Your task to perform on an android device: Do I have any events tomorrow? Image 0: 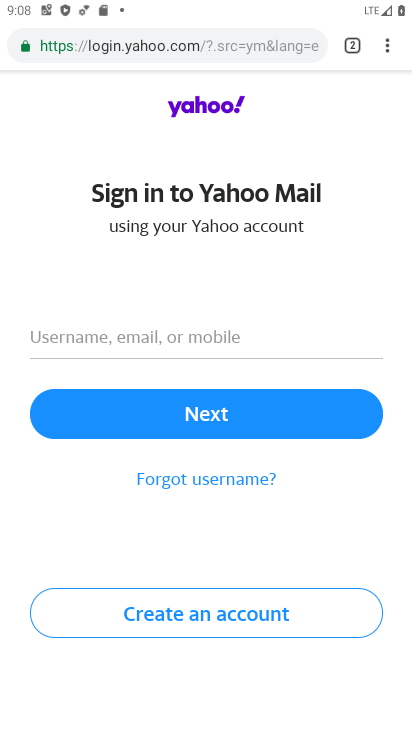
Step 0: press home button
Your task to perform on an android device: Do I have any events tomorrow? Image 1: 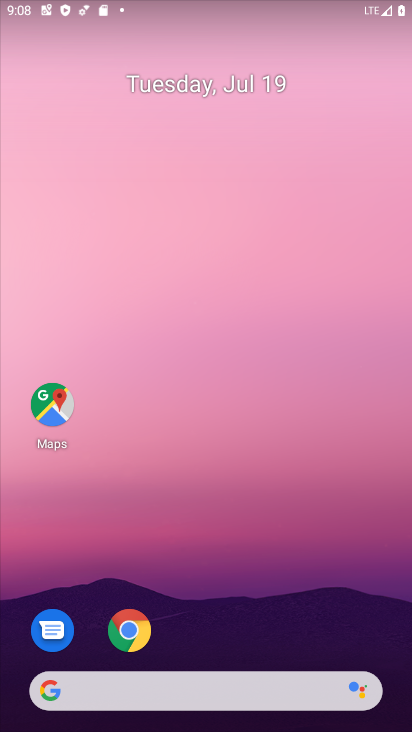
Step 1: drag from (198, 610) to (206, 108)
Your task to perform on an android device: Do I have any events tomorrow? Image 2: 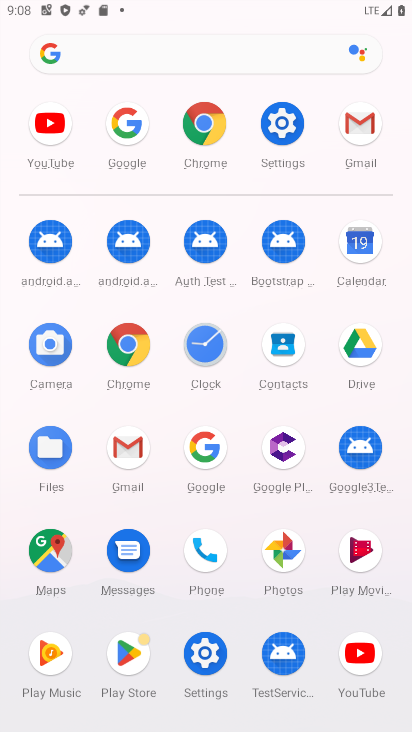
Step 2: click (356, 242)
Your task to perform on an android device: Do I have any events tomorrow? Image 3: 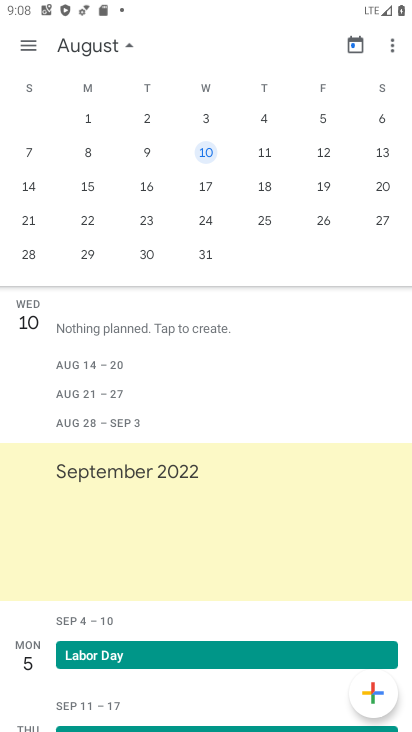
Step 3: click (263, 150)
Your task to perform on an android device: Do I have any events tomorrow? Image 4: 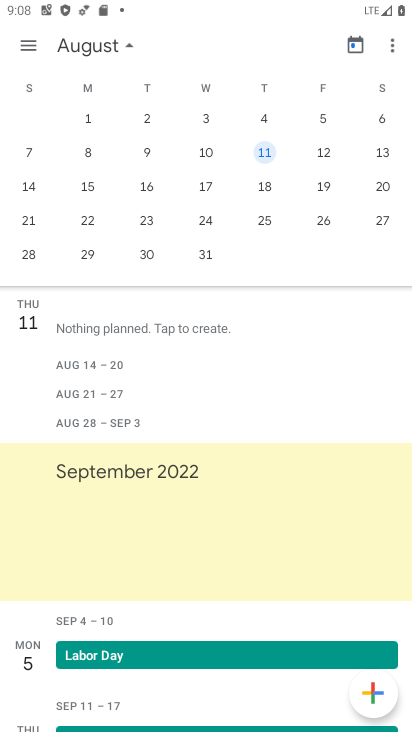
Step 4: task complete